Your task to perform on an android device: Go to calendar. Show me events next week Image 0: 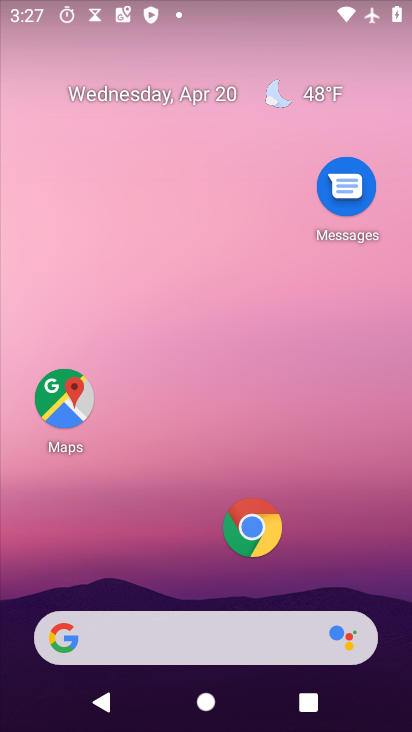
Step 0: drag from (159, 632) to (320, 1)
Your task to perform on an android device: Go to calendar. Show me events next week Image 1: 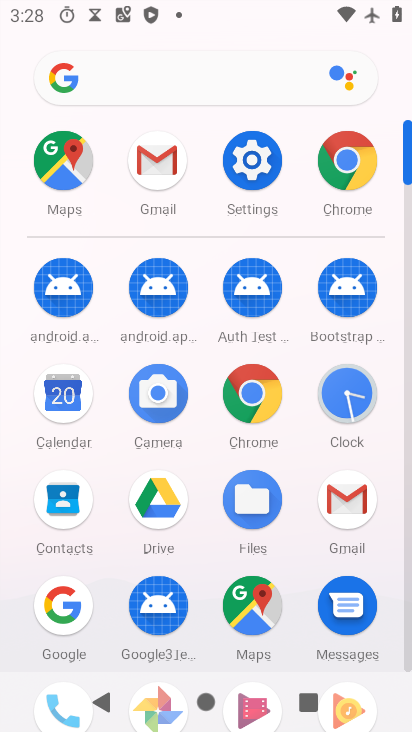
Step 1: click (67, 396)
Your task to perform on an android device: Go to calendar. Show me events next week Image 2: 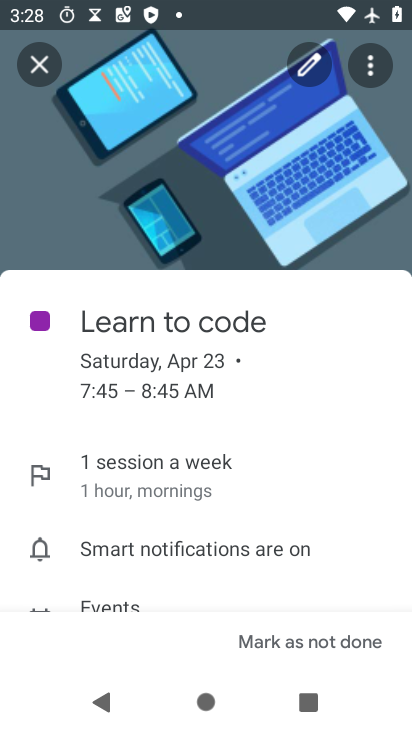
Step 2: click (42, 70)
Your task to perform on an android device: Go to calendar. Show me events next week Image 3: 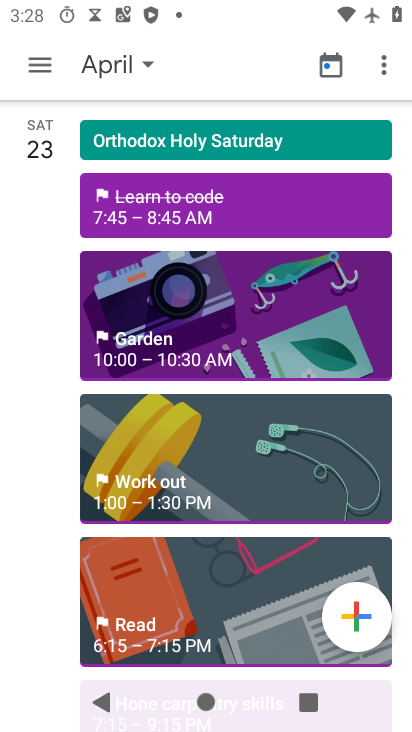
Step 3: click (117, 66)
Your task to perform on an android device: Go to calendar. Show me events next week Image 4: 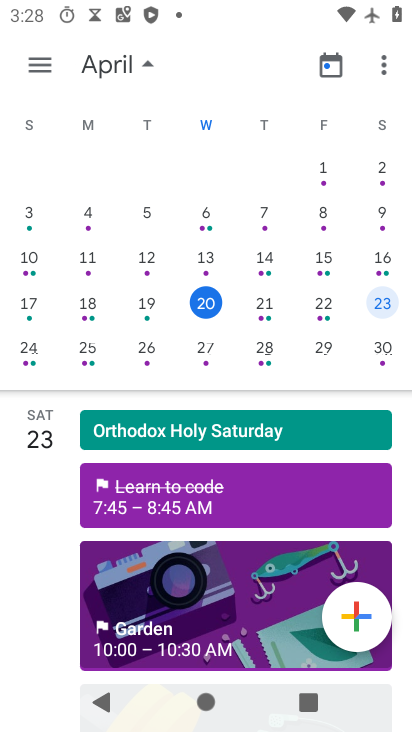
Step 4: click (29, 351)
Your task to perform on an android device: Go to calendar. Show me events next week Image 5: 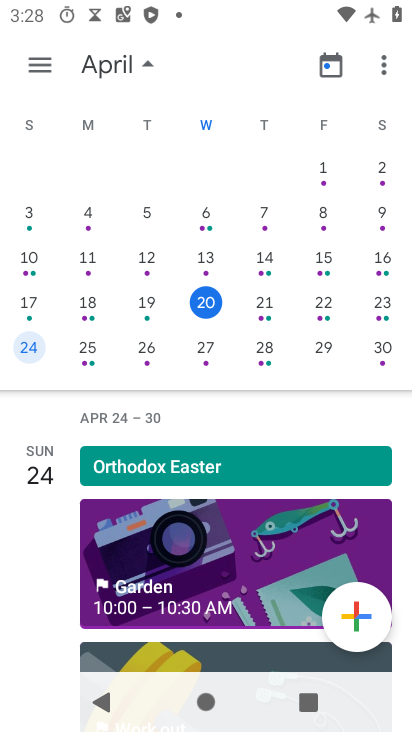
Step 5: click (37, 65)
Your task to perform on an android device: Go to calendar. Show me events next week Image 6: 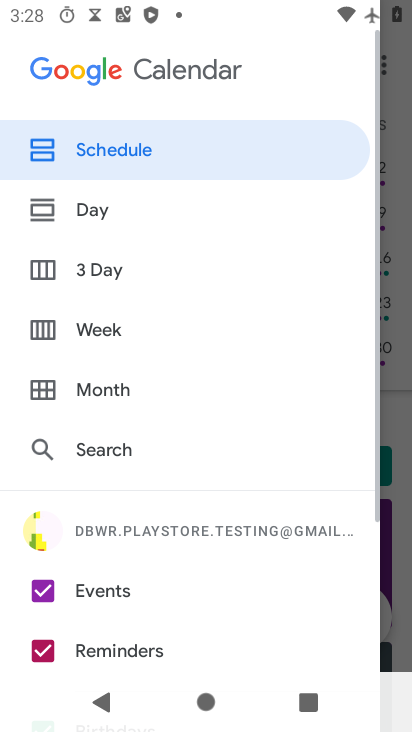
Step 6: click (97, 332)
Your task to perform on an android device: Go to calendar. Show me events next week Image 7: 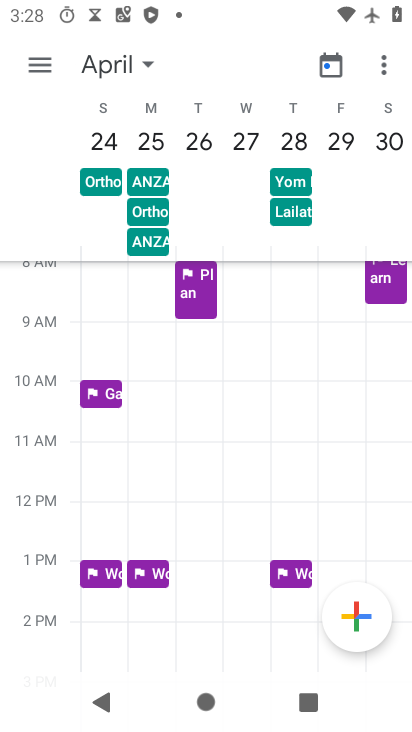
Step 7: click (31, 67)
Your task to perform on an android device: Go to calendar. Show me events next week Image 8: 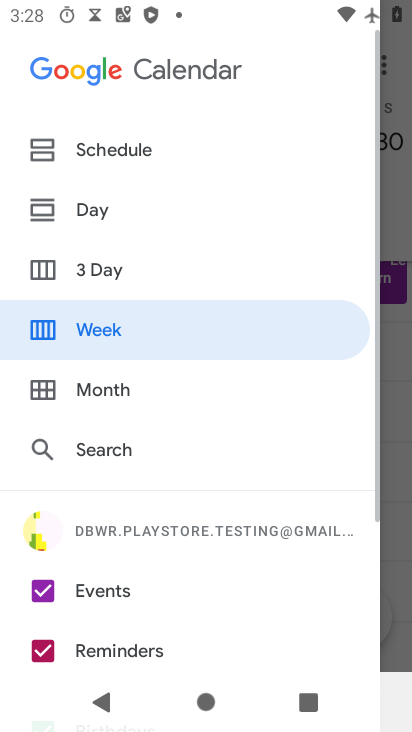
Step 8: click (107, 151)
Your task to perform on an android device: Go to calendar. Show me events next week Image 9: 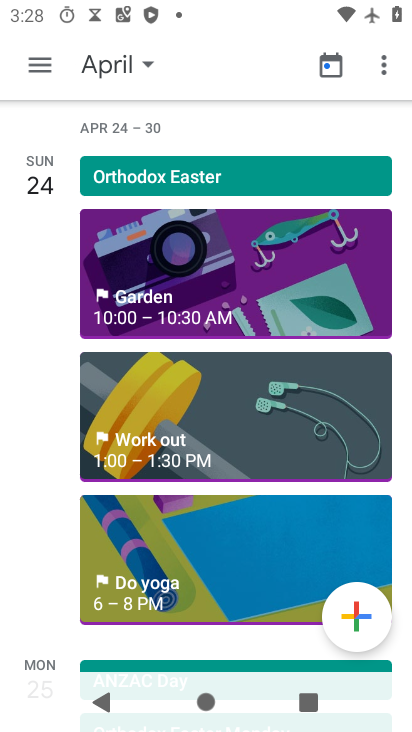
Step 9: click (202, 267)
Your task to perform on an android device: Go to calendar. Show me events next week Image 10: 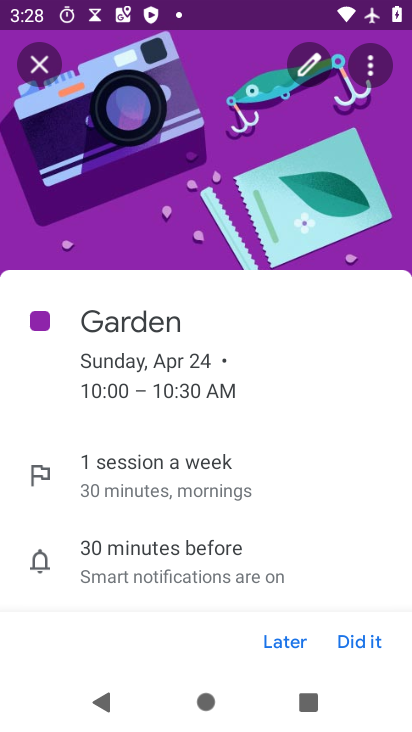
Step 10: task complete